Your task to perform on an android device: toggle translation in the chrome app Image 0: 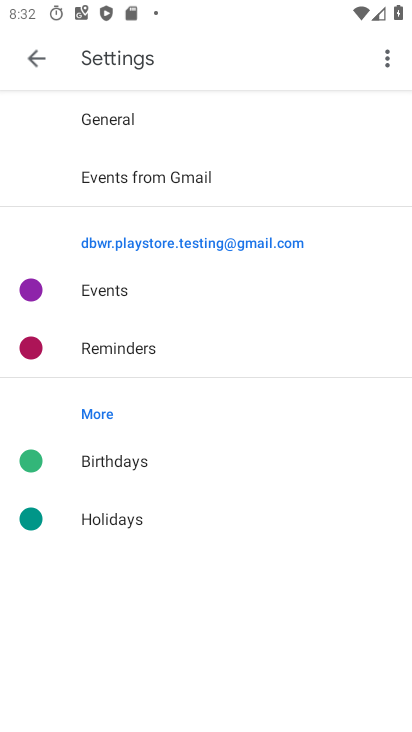
Step 0: press back button
Your task to perform on an android device: toggle translation in the chrome app Image 1: 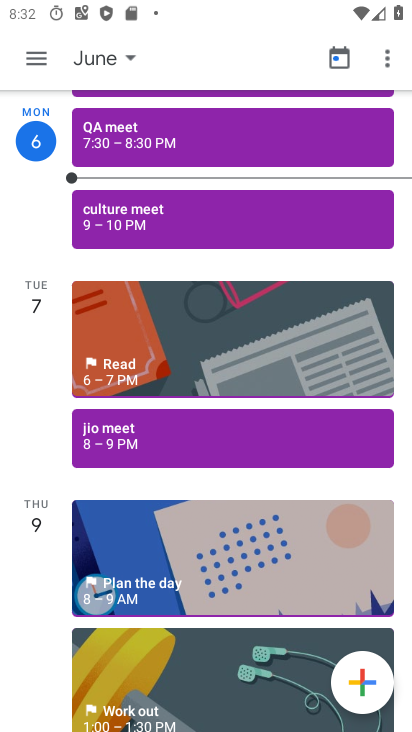
Step 1: press home button
Your task to perform on an android device: toggle translation in the chrome app Image 2: 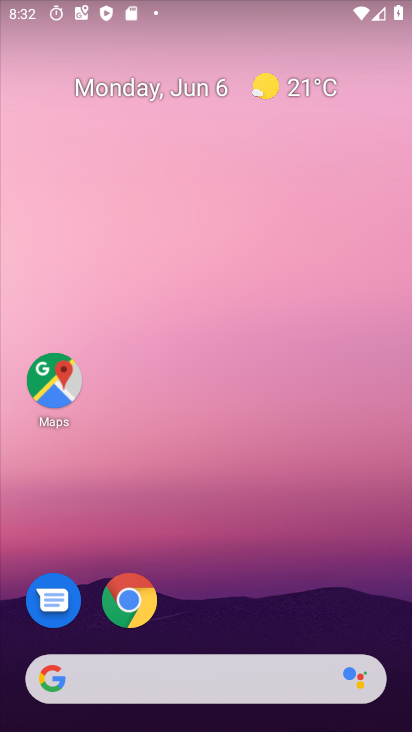
Step 2: drag from (269, 576) to (232, 1)
Your task to perform on an android device: toggle translation in the chrome app Image 3: 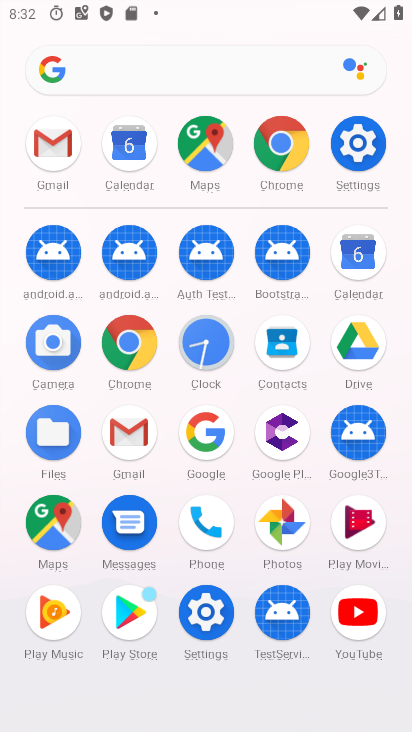
Step 3: click (279, 140)
Your task to perform on an android device: toggle translation in the chrome app Image 4: 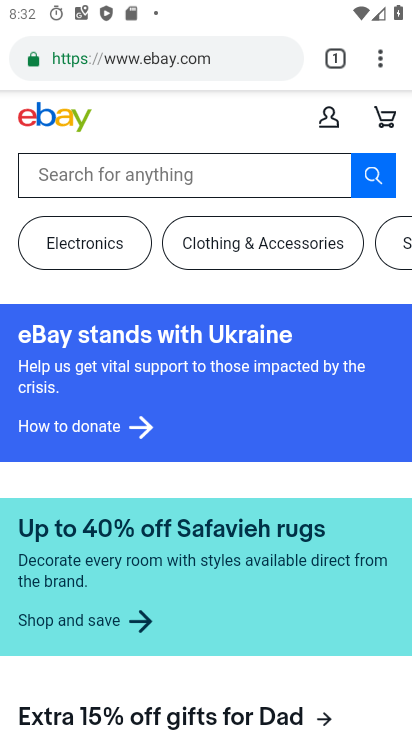
Step 4: drag from (381, 51) to (210, 599)
Your task to perform on an android device: toggle translation in the chrome app Image 5: 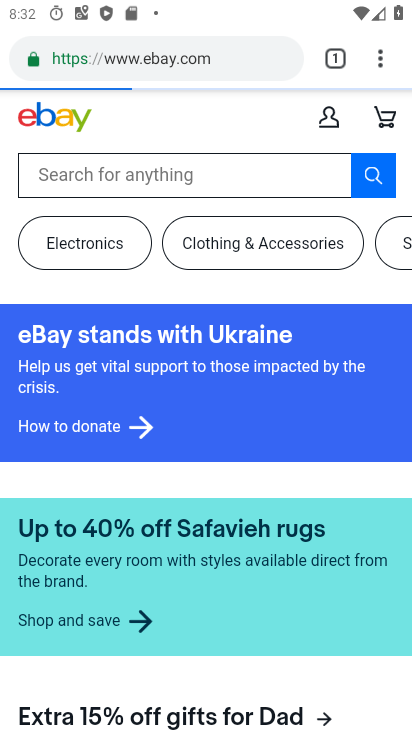
Step 5: drag from (381, 54) to (265, 635)
Your task to perform on an android device: toggle translation in the chrome app Image 6: 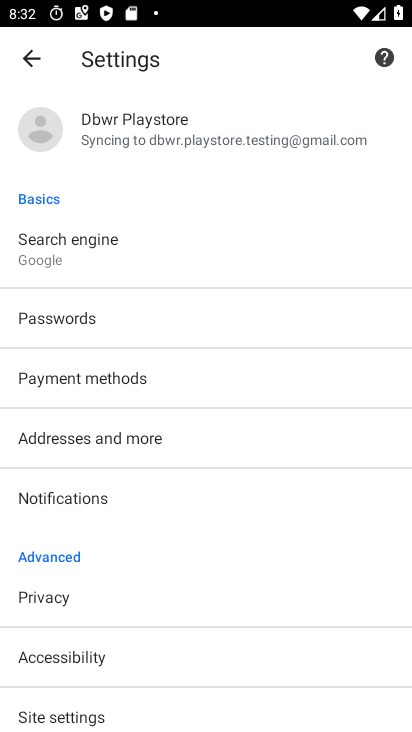
Step 6: drag from (191, 629) to (239, 256)
Your task to perform on an android device: toggle translation in the chrome app Image 7: 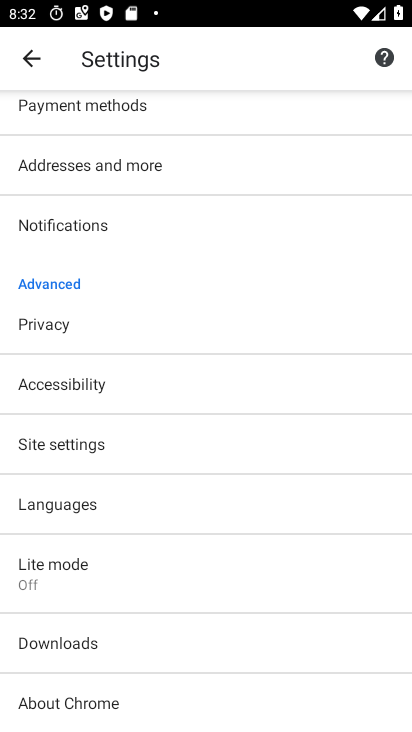
Step 7: click (140, 511)
Your task to perform on an android device: toggle translation in the chrome app Image 8: 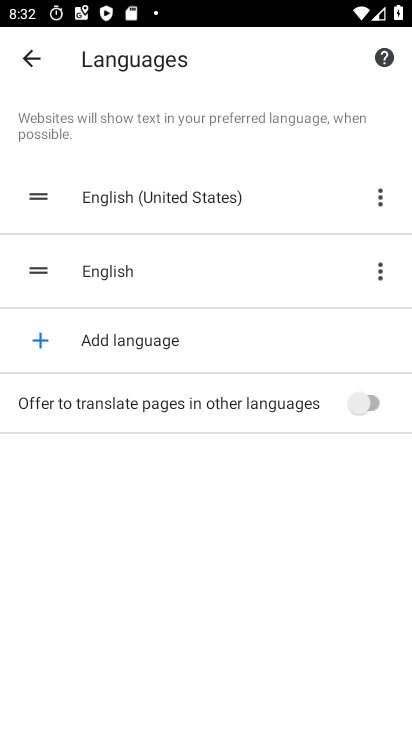
Step 8: click (378, 396)
Your task to perform on an android device: toggle translation in the chrome app Image 9: 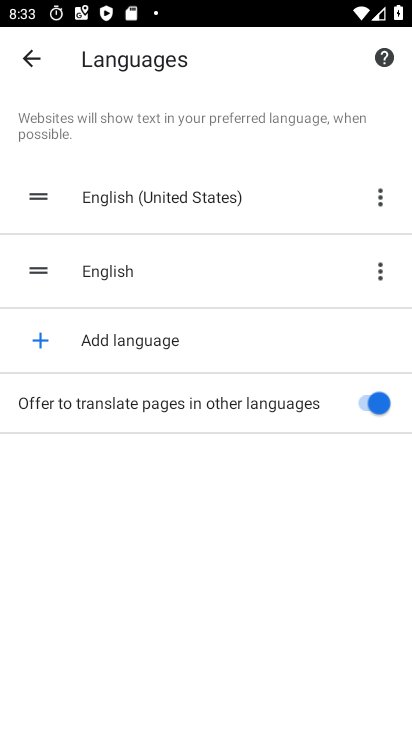
Step 9: task complete